Your task to perform on an android device: Go to Wikipedia Image 0: 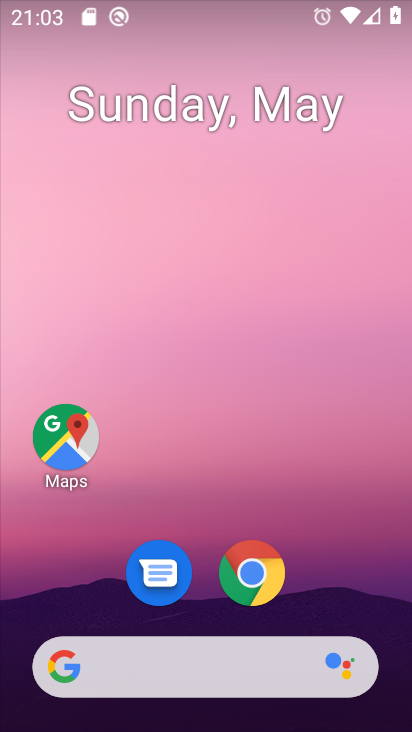
Step 0: click (253, 566)
Your task to perform on an android device: Go to Wikipedia Image 1: 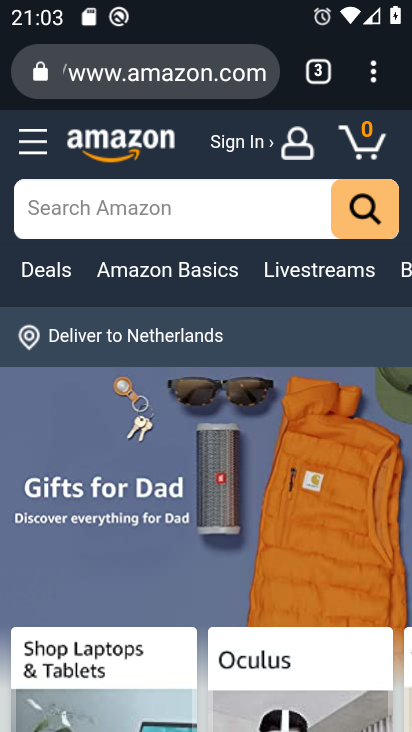
Step 1: click (371, 76)
Your task to perform on an android device: Go to Wikipedia Image 2: 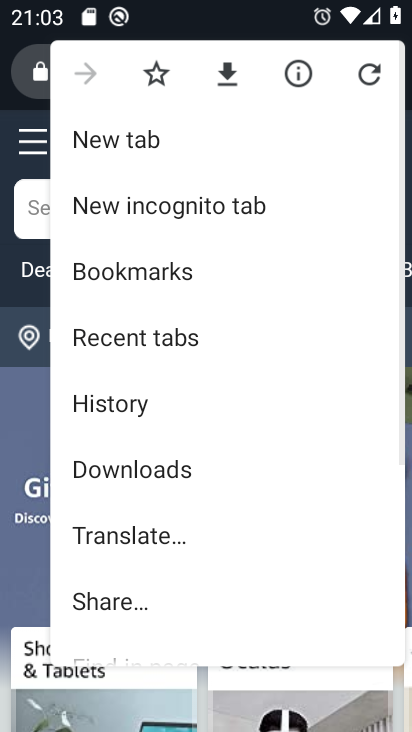
Step 2: click (247, 136)
Your task to perform on an android device: Go to Wikipedia Image 3: 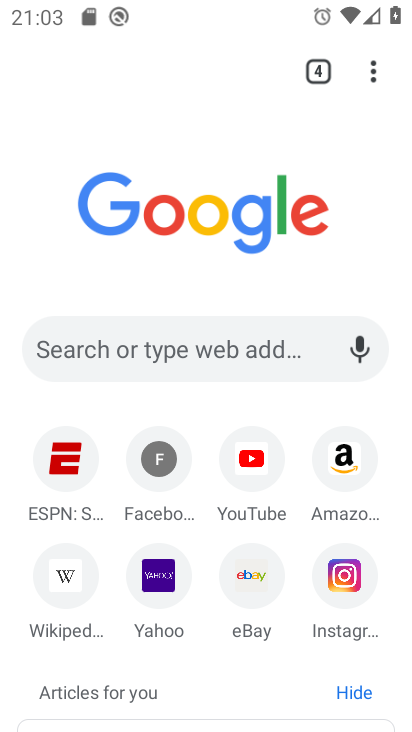
Step 3: click (64, 573)
Your task to perform on an android device: Go to Wikipedia Image 4: 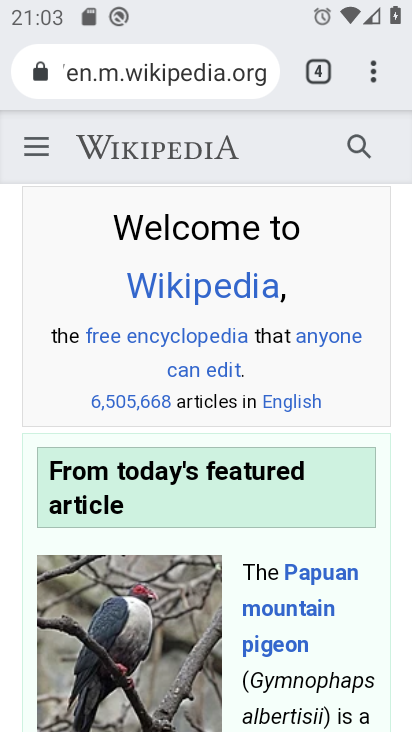
Step 4: task complete